Your task to perform on an android device: Open accessibility settings Image 0: 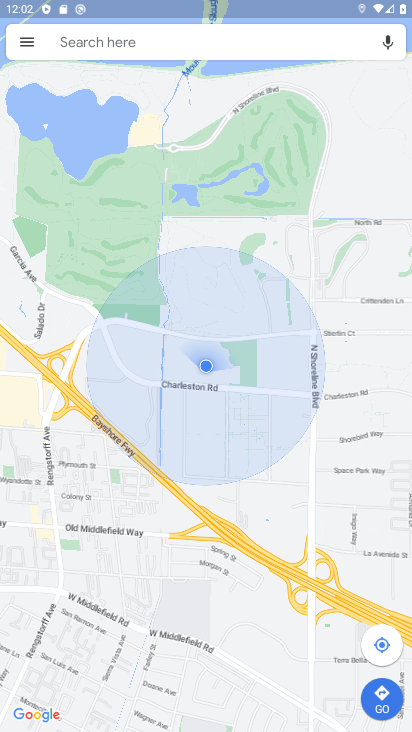
Step 0: press home button
Your task to perform on an android device: Open accessibility settings Image 1: 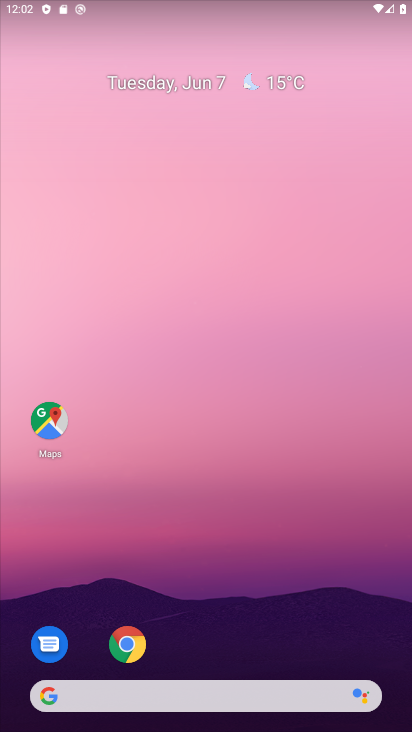
Step 1: drag from (319, 556) to (261, 52)
Your task to perform on an android device: Open accessibility settings Image 2: 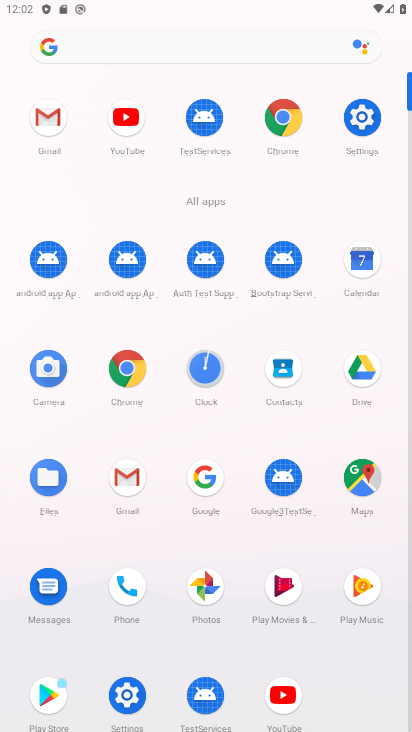
Step 2: click (363, 120)
Your task to perform on an android device: Open accessibility settings Image 3: 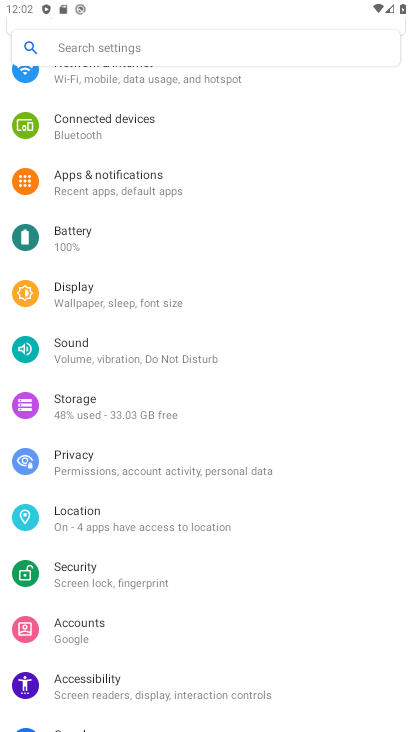
Step 3: click (97, 693)
Your task to perform on an android device: Open accessibility settings Image 4: 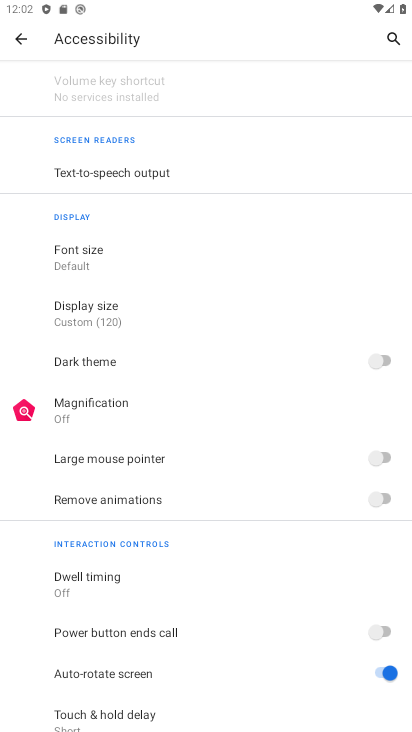
Step 4: task complete